Your task to perform on an android device: toggle airplane mode Image 0: 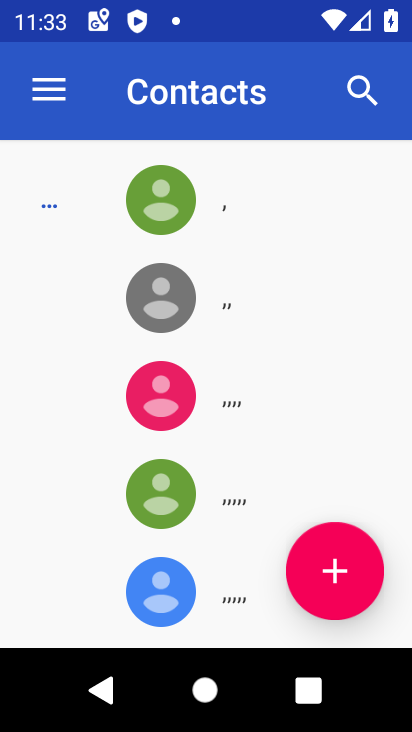
Step 0: press back button
Your task to perform on an android device: toggle airplane mode Image 1: 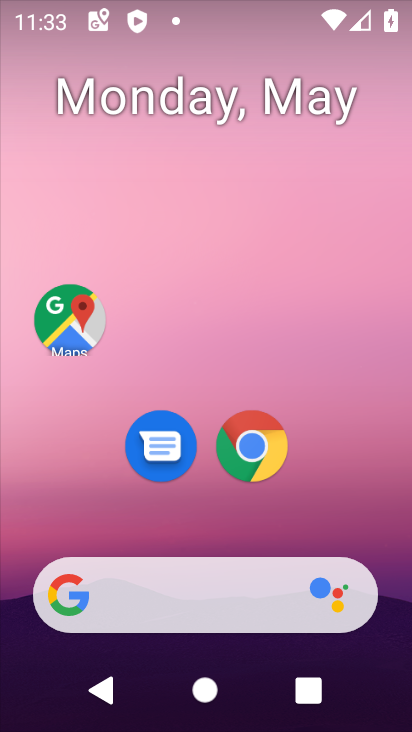
Step 1: drag from (336, 504) to (257, 89)
Your task to perform on an android device: toggle airplane mode Image 2: 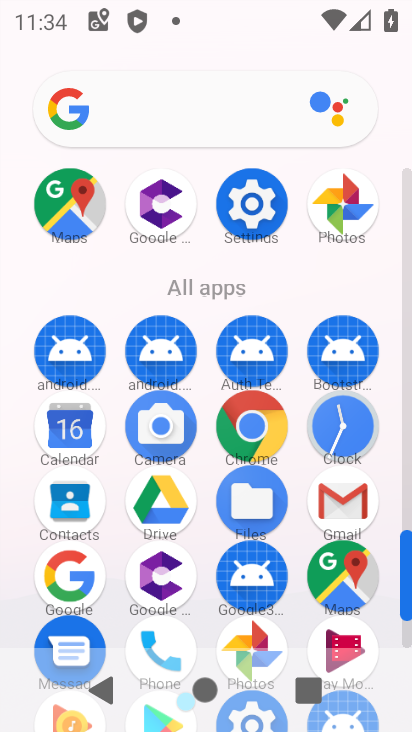
Step 2: click (251, 204)
Your task to perform on an android device: toggle airplane mode Image 3: 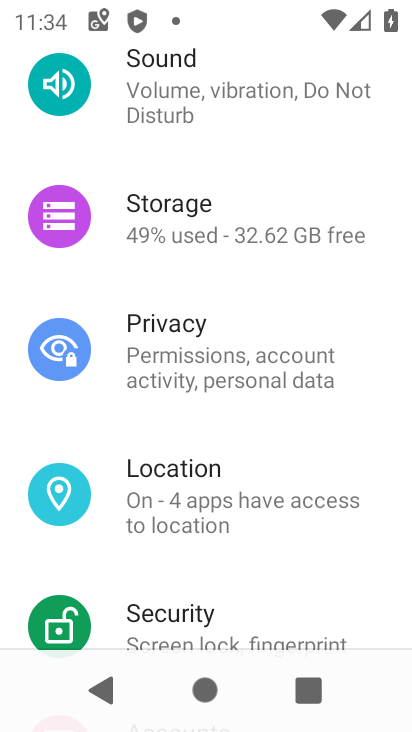
Step 3: drag from (246, 184) to (250, 301)
Your task to perform on an android device: toggle airplane mode Image 4: 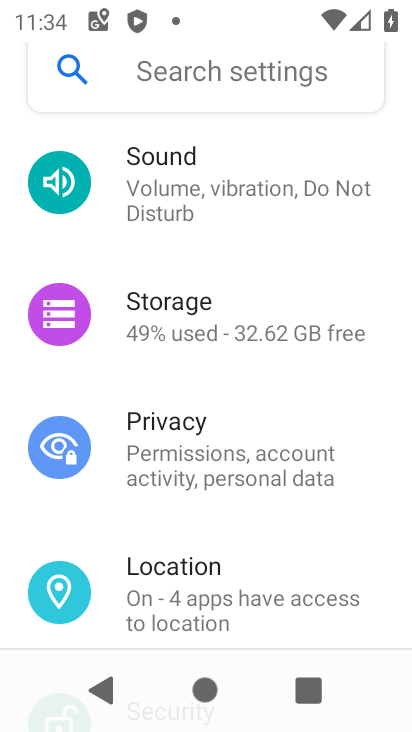
Step 4: drag from (255, 168) to (257, 359)
Your task to perform on an android device: toggle airplane mode Image 5: 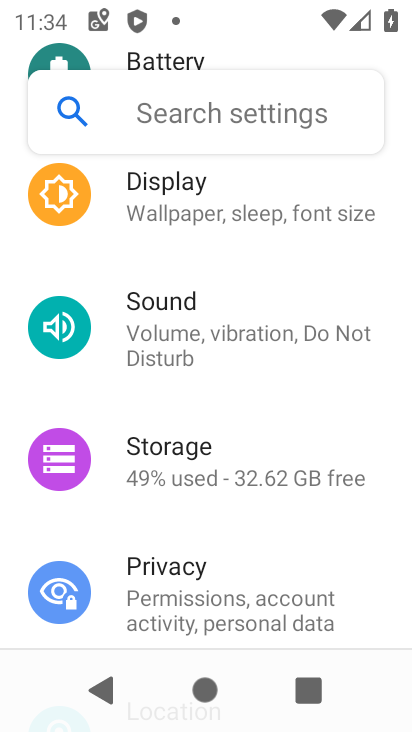
Step 5: drag from (264, 245) to (245, 433)
Your task to perform on an android device: toggle airplane mode Image 6: 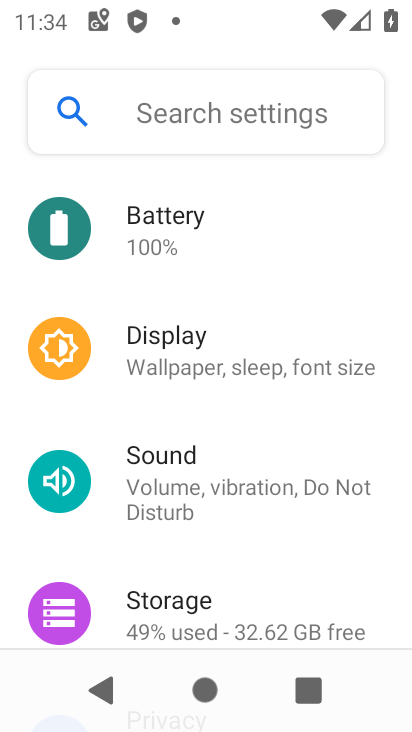
Step 6: drag from (237, 293) to (217, 420)
Your task to perform on an android device: toggle airplane mode Image 7: 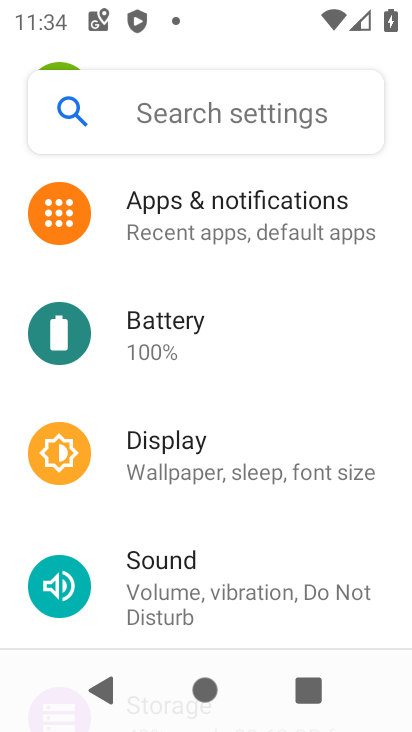
Step 7: drag from (213, 274) to (257, 395)
Your task to perform on an android device: toggle airplane mode Image 8: 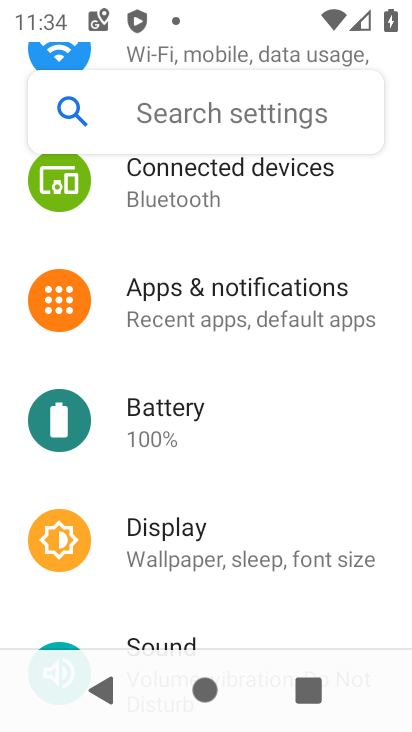
Step 8: drag from (247, 235) to (264, 364)
Your task to perform on an android device: toggle airplane mode Image 9: 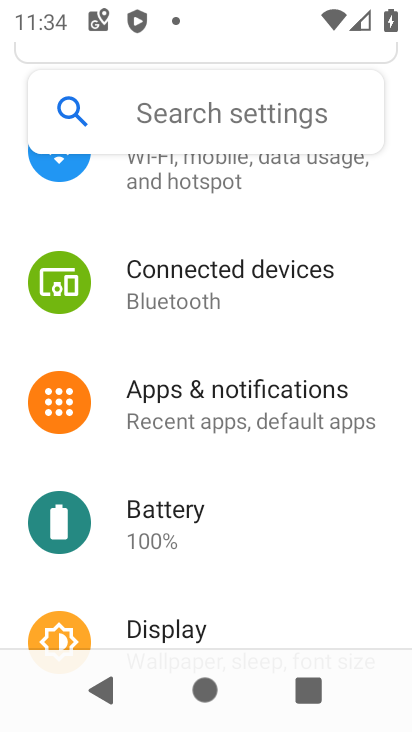
Step 9: drag from (230, 215) to (246, 418)
Your task to perform on an android device: toggle airplane mode Image 10: 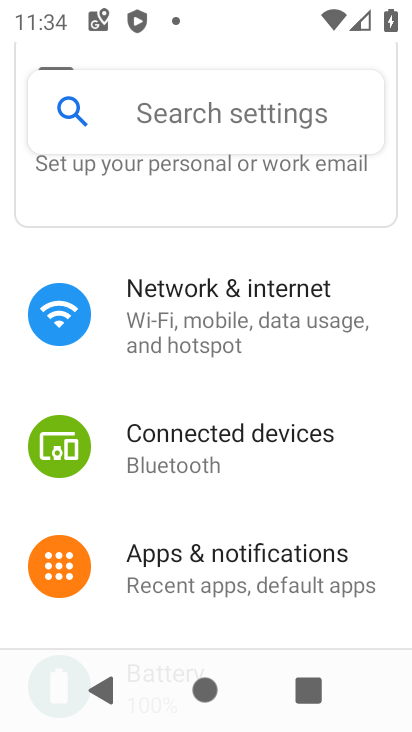
Step 10: click (226, 288)
Your task to perform on an android device: toggle airplane mode Image 11: 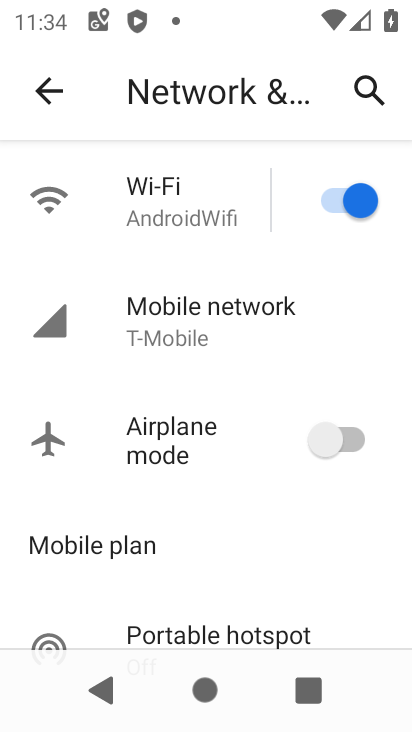
Step 11: click (337, 443)
Your task to perform on an android device: toggle airplane mode Image 12: 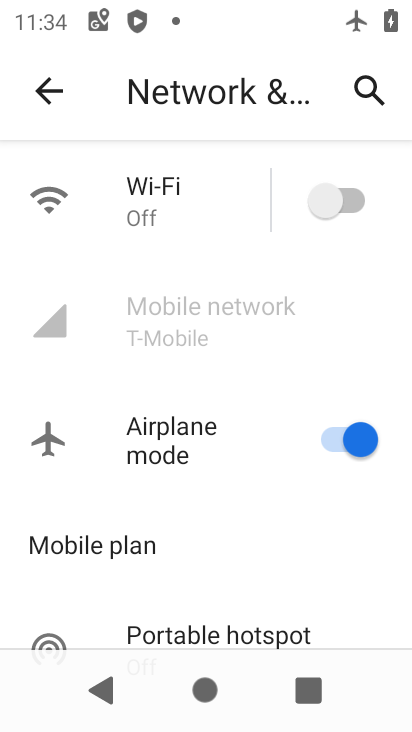
Step 12: task complete